Your task to perform on an android device: Search for sushi restaurants on Maps Image 0: 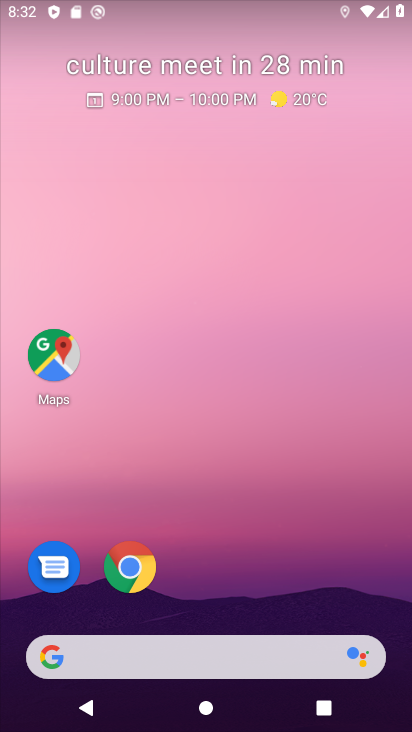
Step 0: click (59, 352)
Your task to perform on an android device: Search for sushi restaurants on Maps Image 1: 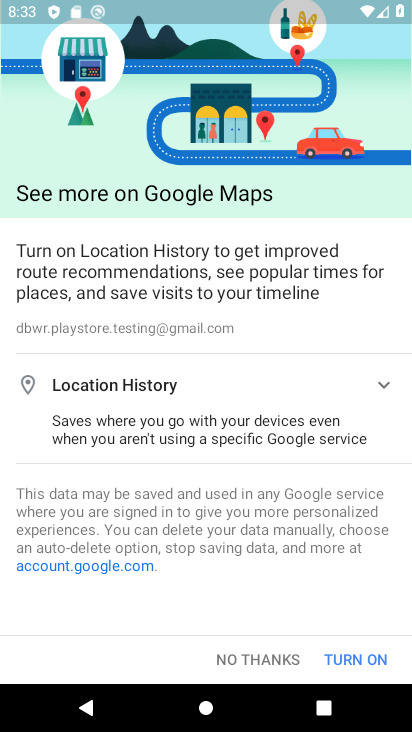
Step 1: click (346, 661)
Your task to perform on an android device: Search for sushi restaurants on Maps Image 2: 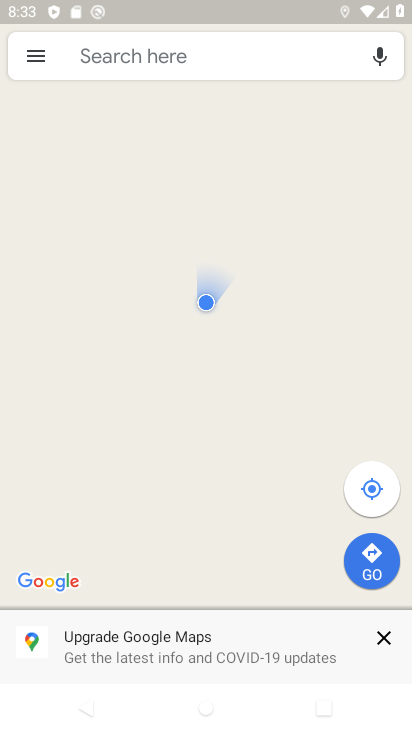
Step 2: click (184, 44)
Your task to perform on an android device: Search for sushi restaurants on Maps Image 3: 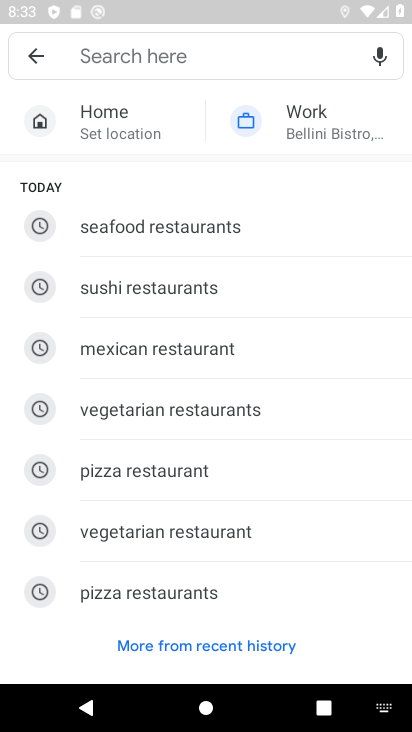
Step 3: click (101, 293)
Your task to perform on an android device: Search for sushi restaurants on Maps Image 4: 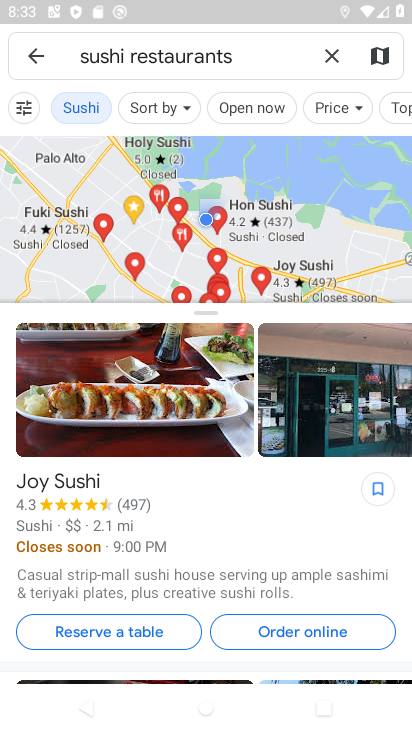
Step 4: task complete